Your task to perform on an android device: turn notification dots on Image 0: 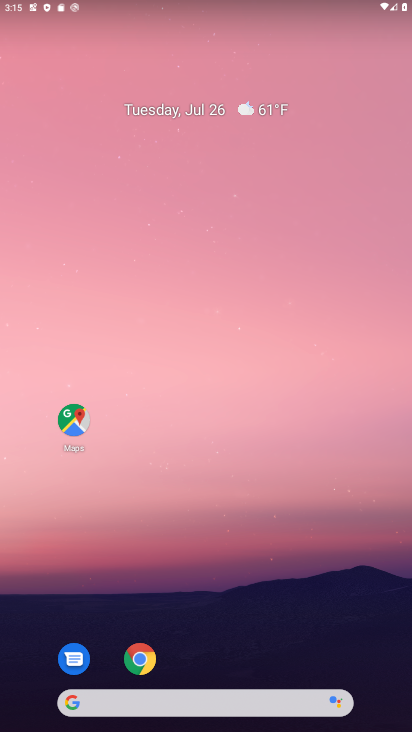
Step 0: drag from (181, 669) to (190, 30)
Your task to perform on an android device: turn notification dots on Image 1: 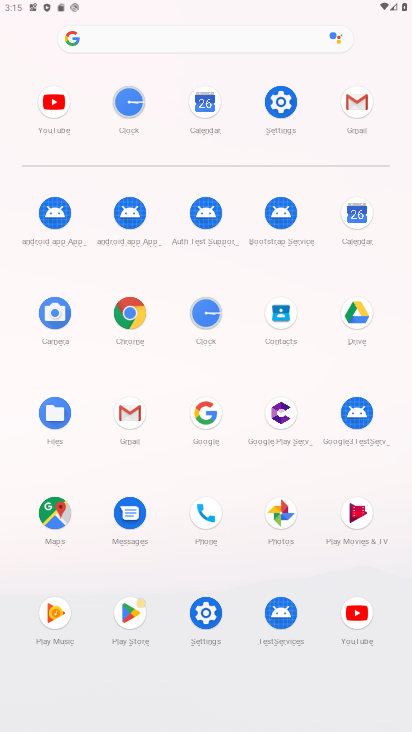
Step 1: click (278, 115)
Your task to perform on an android device: turn notification dots on Image 2: 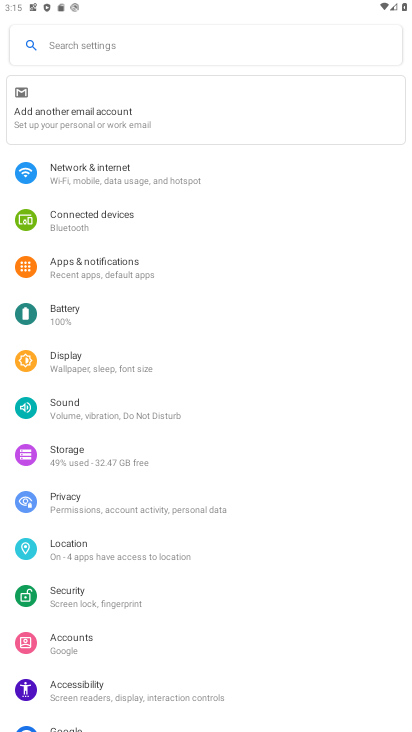
Step 2: click (112, 260)
Your task to perform on an android device: turn notification dots on Image 3: 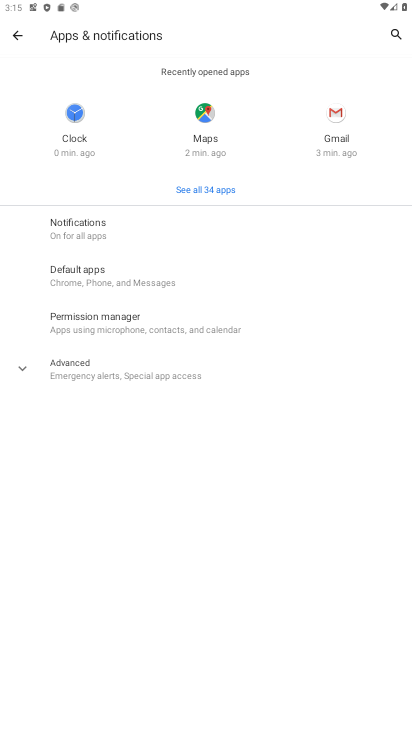
Step 3: click (103, 235)
Your task to perform on an android device: turn notification dots on Image 4: 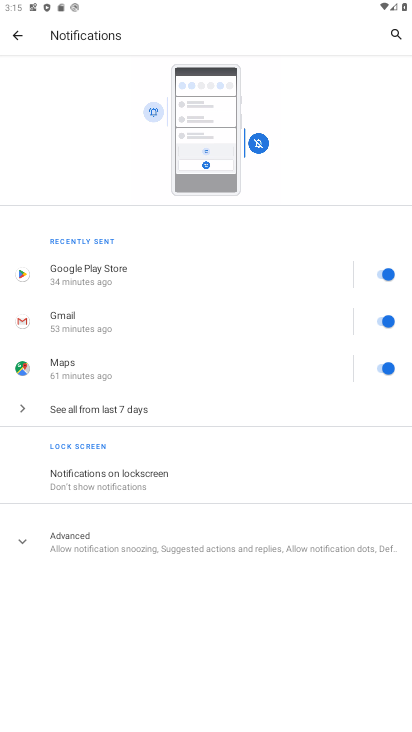
Step 4: click (118, 541)
Your task to perform on an android device: turn notification dots on Image 5: 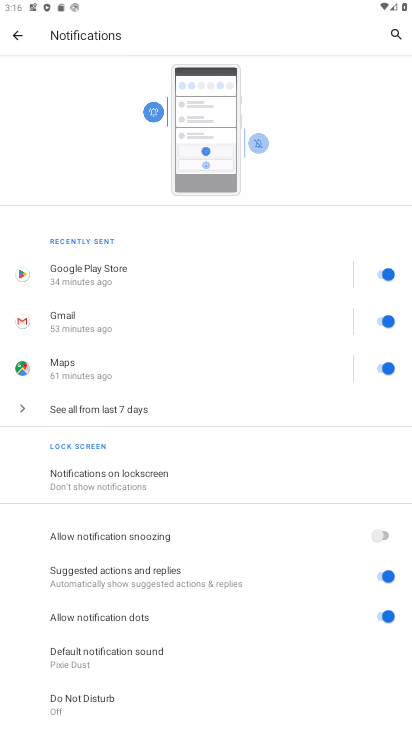
Step 5: press home button
Your task to perform on an android device: turn notification dots on Image 6: 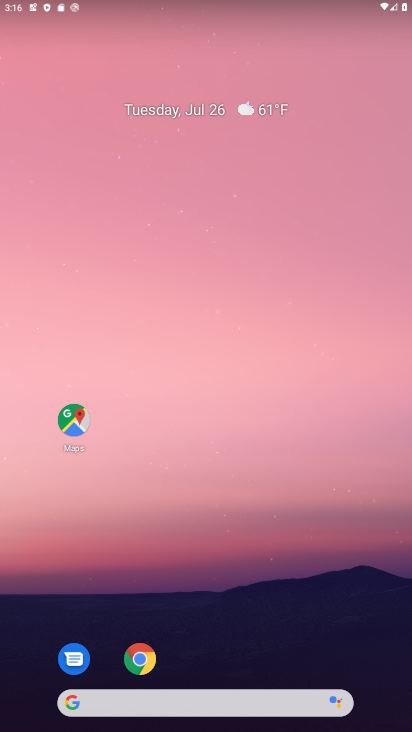
Step 6: drag from (186, 638) to (257, 11)
Your task to perform on an android device: turn notification dots on Image 7: 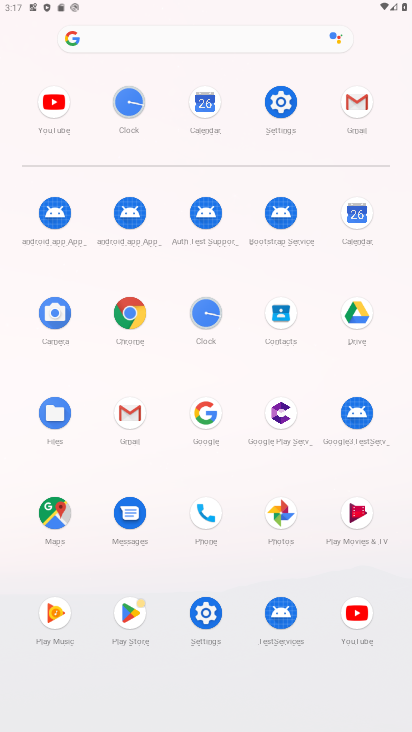
Step 7: click (287, 118)
Your task to perform on an android device: turn notification dots on Image 8: 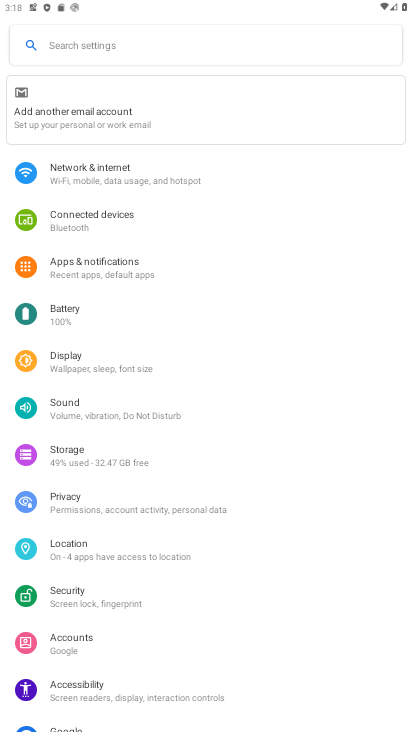
Step 8: click (86, 270)
Your task to perform on an android device: turn notification dots on Image 9: 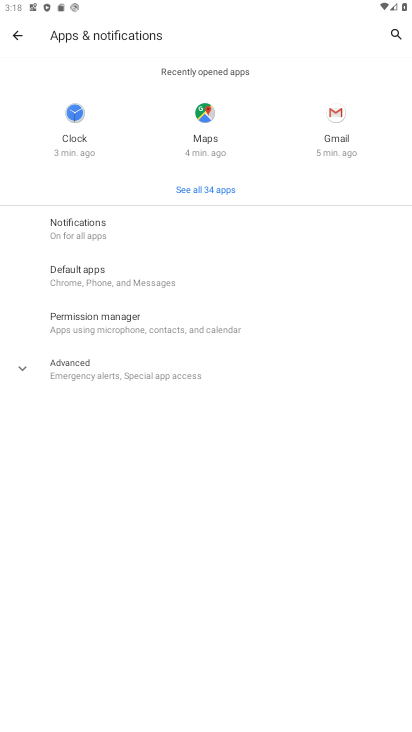
Step 9: click (52, 373)
Your task to perform on an android device: turn notification dots on Image 10: 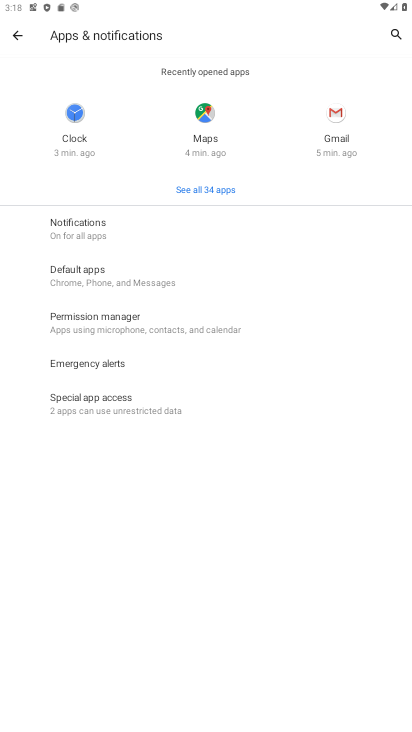
Step 10: click (98, 229)
Your task to perform on an android device: turn notification dots on Image 11: 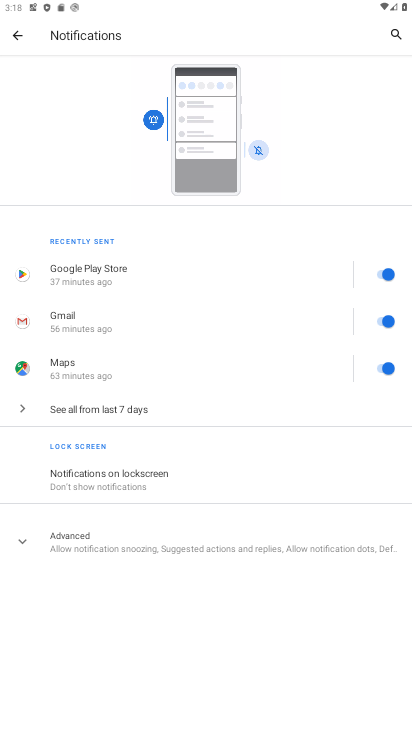
Step 11: click (103, 545)
Your task to perform on an android device: turn notification dots on Image 12: 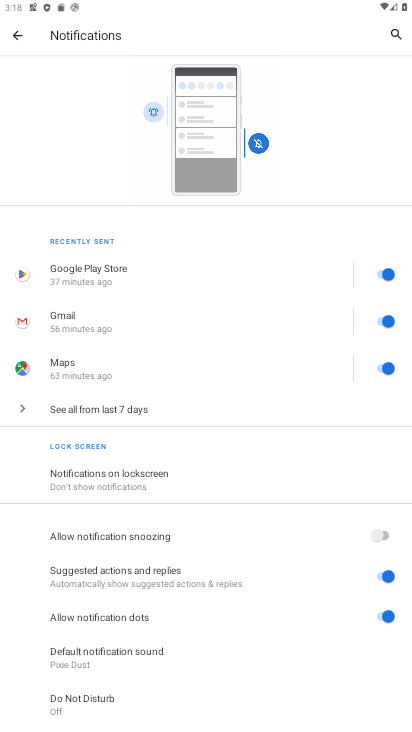
Step 12: task complete